Your task to perform on an android device: Open sound settings Image 0: 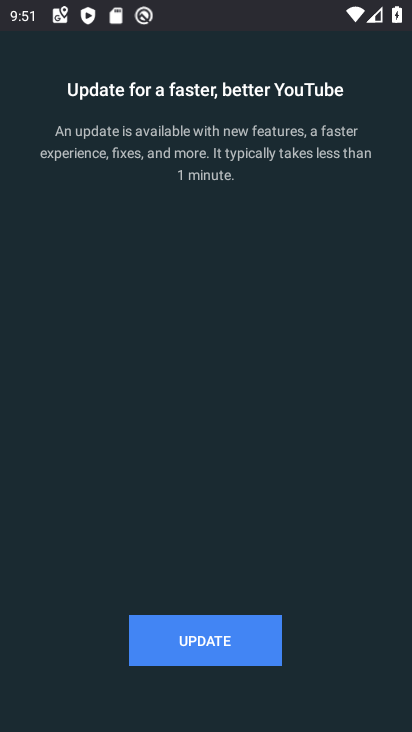
Step 0: press home button
Your task to perform on an android device: Open sound settings Image 1: 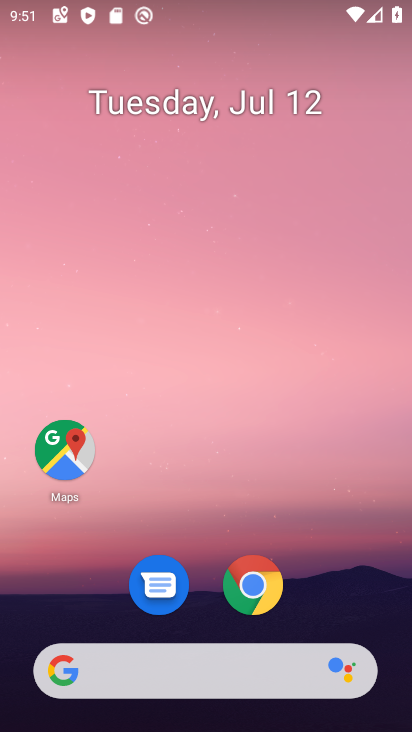
Step 1: drag from (209, 680) to (277, 96)
Your task to perform on an android device: Open sound settings Image 2: 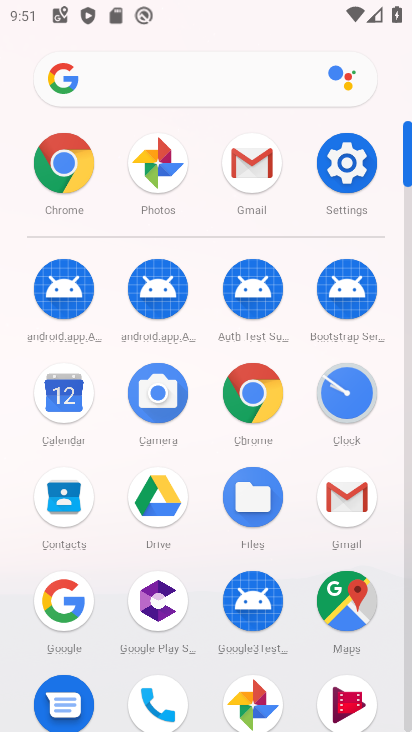
Step 2: click (344, 162)
Your task to perform on an android device: Open sound settings Image 3: 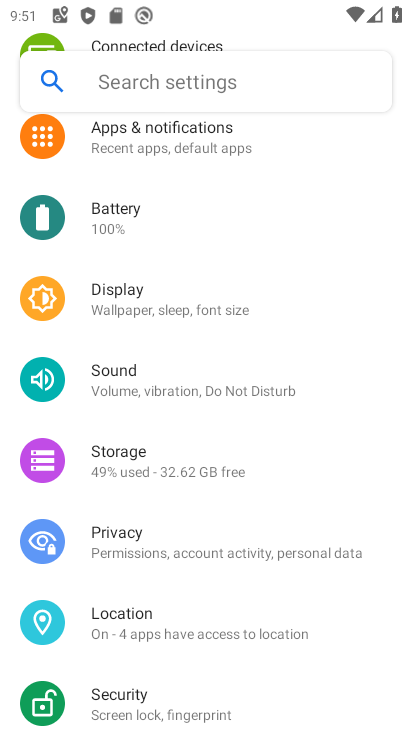
Step 3: click (170, 384)
Your task to perform on an android device: Open sound settings Image 4: 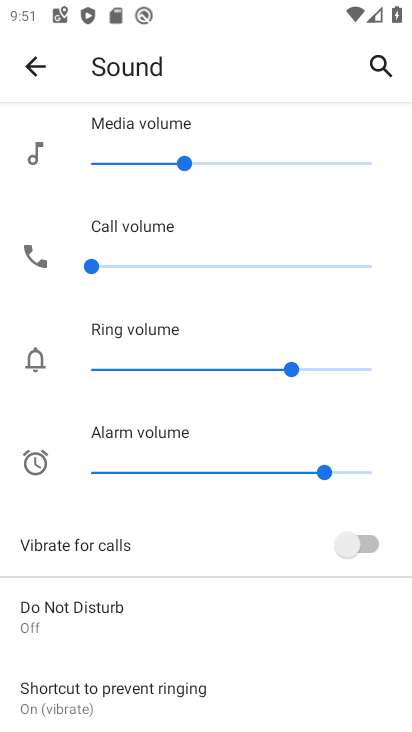
Step 4: task complete